Your task to perform on an android device: empty trash in the gmail app Image 0: 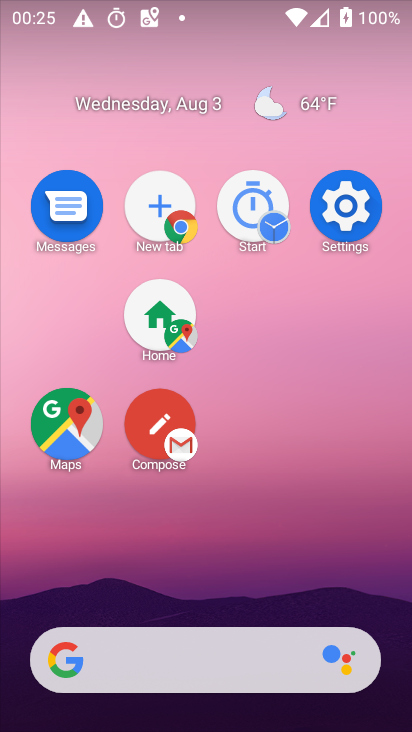
Step 0: drag from (300, 592) to (177, 265)
Your task to perform on an android device: empty trash in the gmail app Image 1: 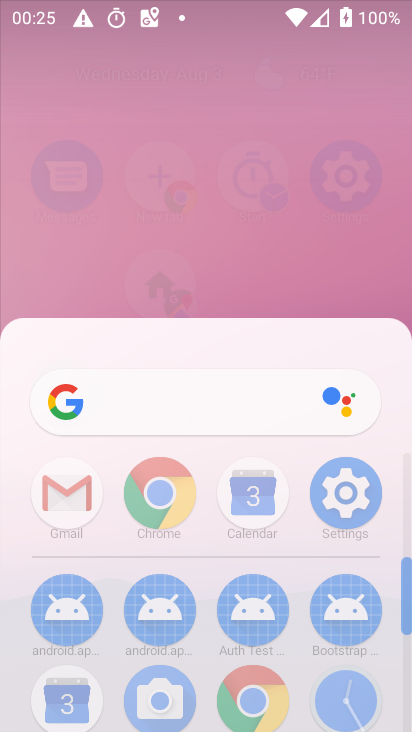
Step 1: drag from (407, 560) to (349, 176)
Your task to perform on an android device: empty trash in the gmail app Image 2: 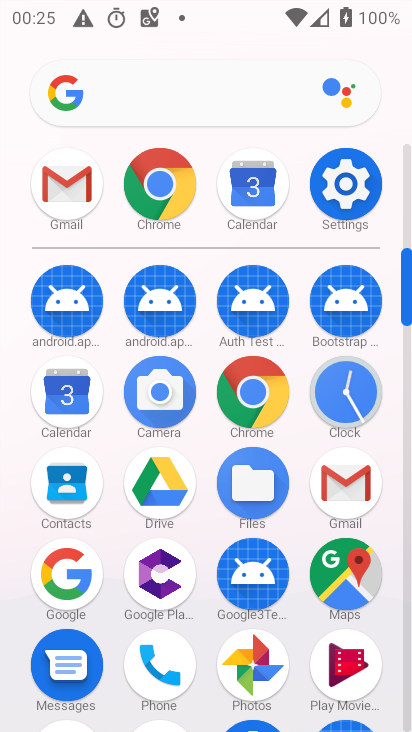
Step 2: drag from (163, 475) to (163, 352)
Your task to perform on an android device: empty trash in the gmail app Image 3: 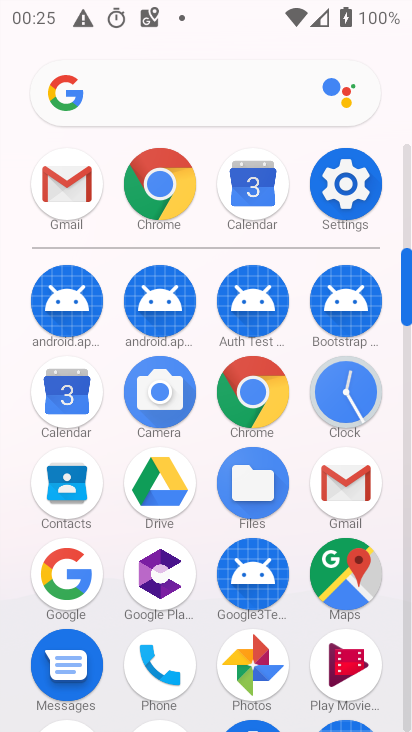
Step 3: click (358, 480)
Your task to perform on an android device: empty trash in the gmail app Image 4: 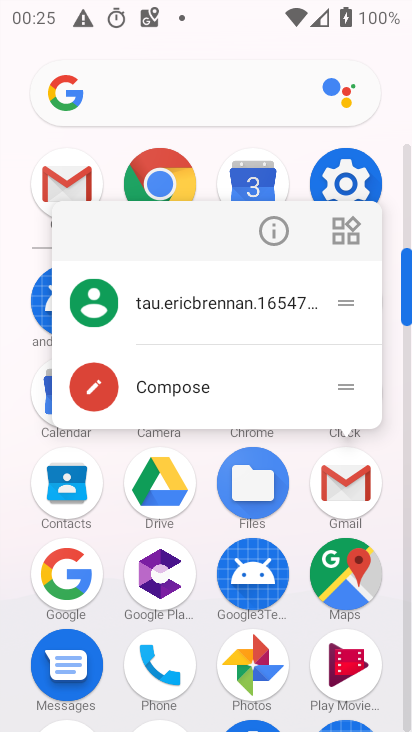
Step 4: click (211, 389)
Your task to perform on an android device: empty trash in the gmail app Image 5: 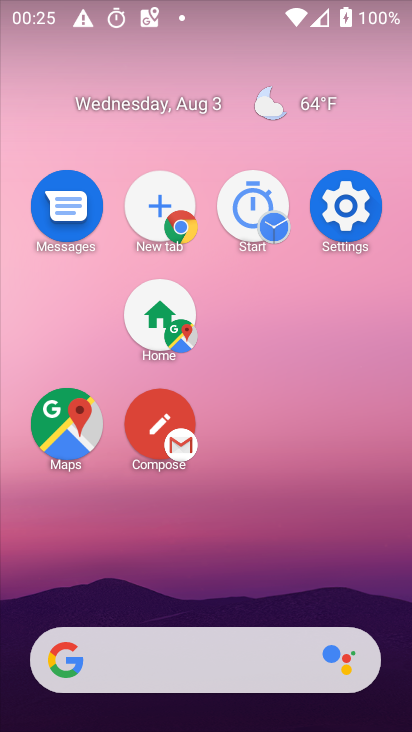
Step 5: drag from (226, 508) to (220, 74)
Your task to perform on an android device: empty trash in the gmail app Image 6: 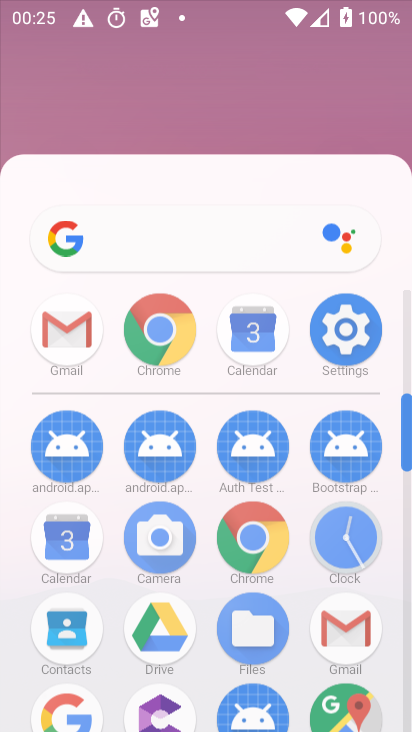
Step 6: drag from (298, 455) to (279, 226)
Your task to perform on an android device: empty trash in the gmail app Image 7: 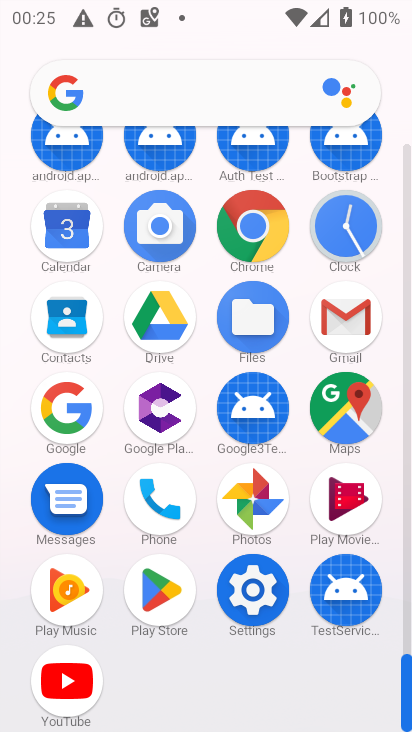
Step 7: click (359, 474)
Your task to perform on an android device: empty trash in the gmail app Image 8: 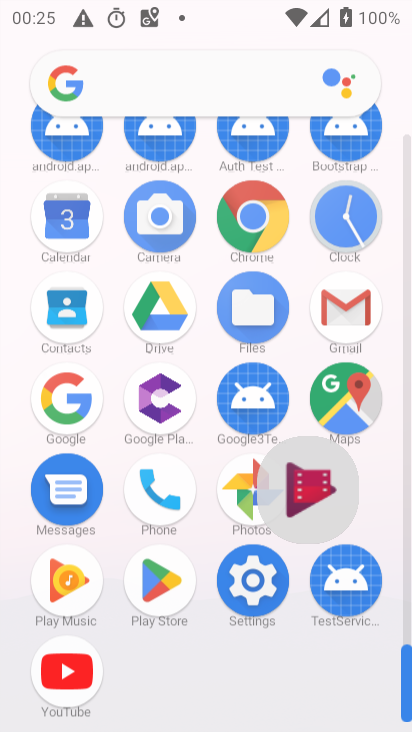
Step 8: click (337, 308)
Your task to perform on an android device: empty trash in the gmail app Image 9: 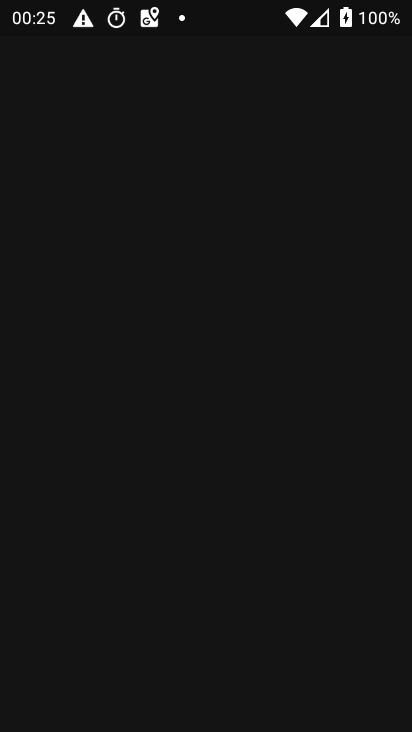
Step 9: click (338, 309)
Your task to perform on an android device: empty trash in the gmail app Image 10: 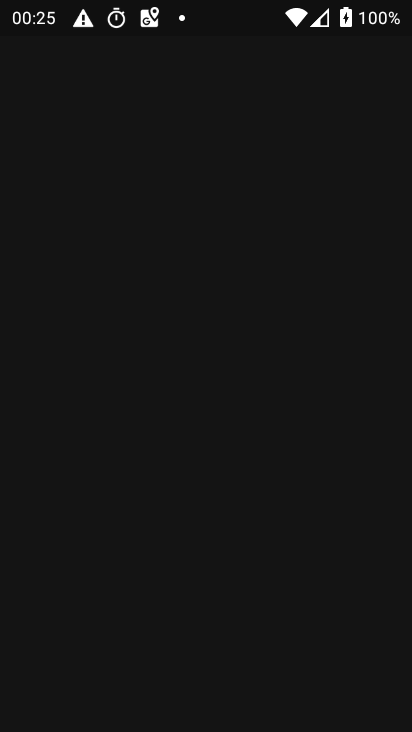
Step 10: click (339, 308)
Your task to perform on an android device: empty trash in the gmail app Image 11: 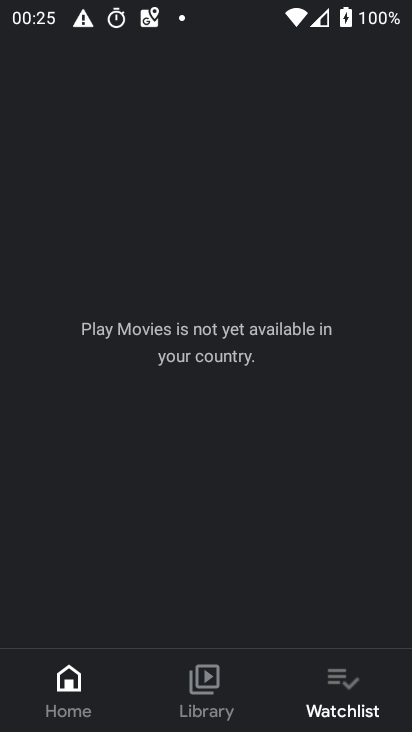
Step 11: press back button
Your task to perform on an android device: empty trash in the gmail app Image 12: 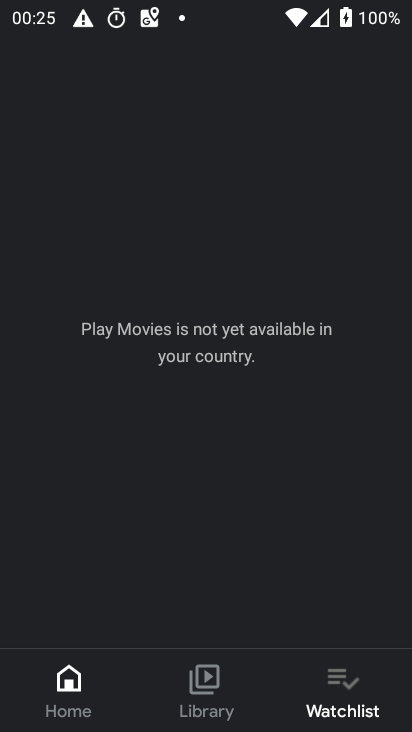
Step 12: press back button
Your task to perform on an android device: empty trash in the gmail app Image 13: 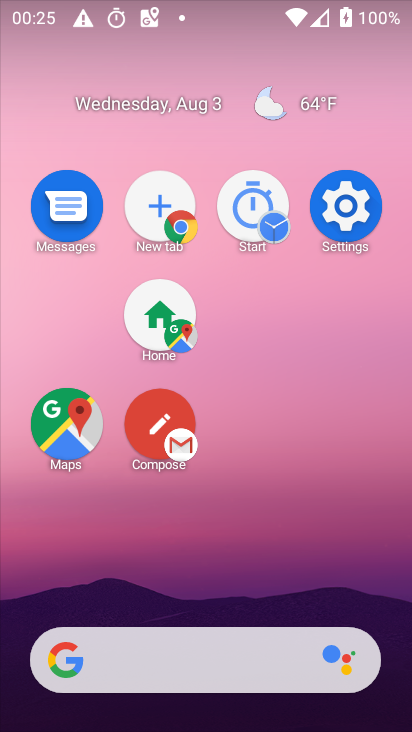
Step 13: drag from (301, 706) to (261, 384)
Your task to perform on an android device: empty trash in the gmail app Image 14: 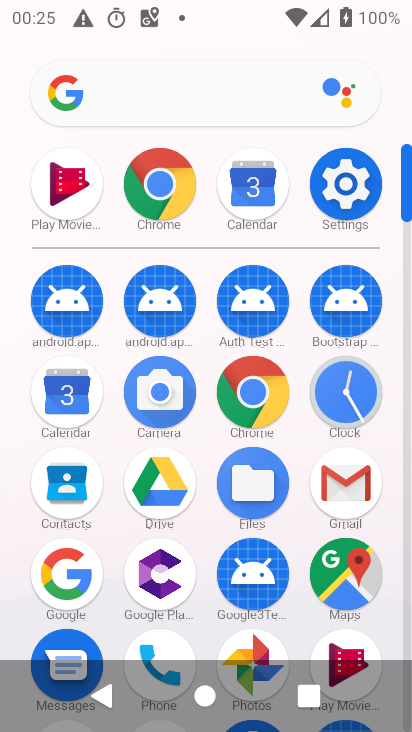
Step 14: click (336, 475)
Your task to perform on an android device: empty trash in the gmail app Image 15: 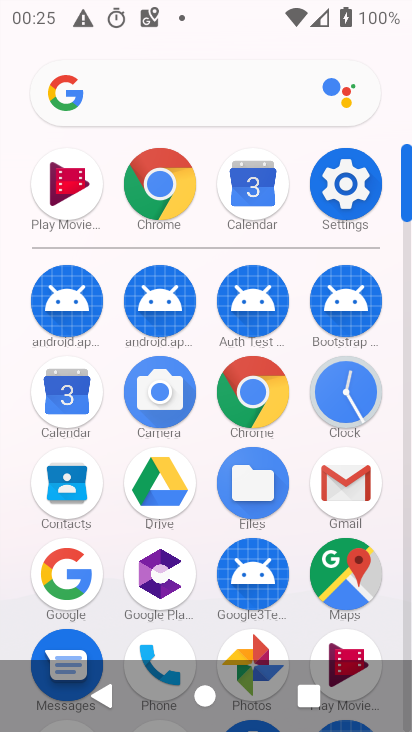
Step 15: click (336, 475)
Your task to perform on an android device: empty trash in the gmail app Image 16: 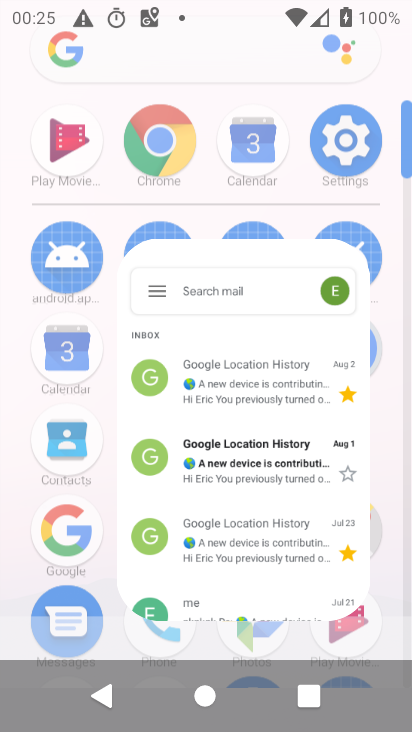
Step 16: click (335, 475)
Your task to perform on an android device: empty trash in the gmail app Image 17: 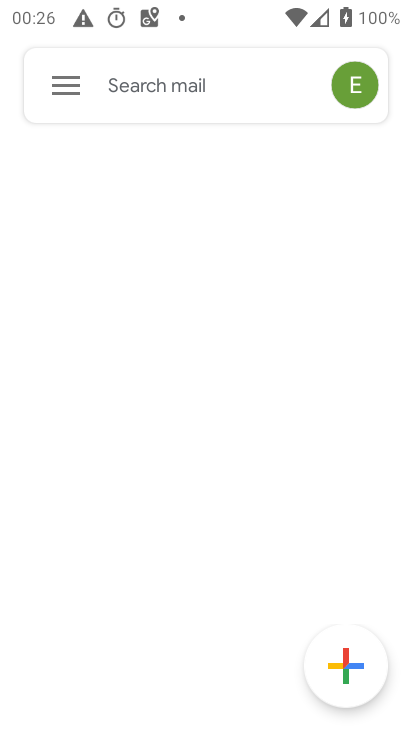
Step 17: drag from (76, 87) to (130, 362)
Your task to perform on an android device: empty trash in the gmail app Image 18: 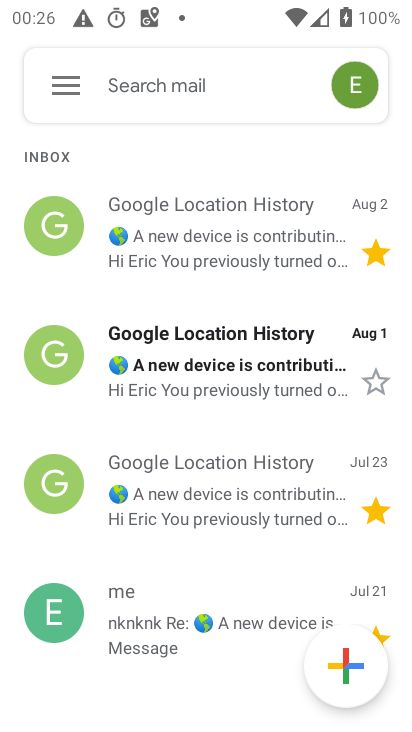
Step 18: click (65, 92)
Your task to perform on an android device: empty trash in the gmail app Image 19: 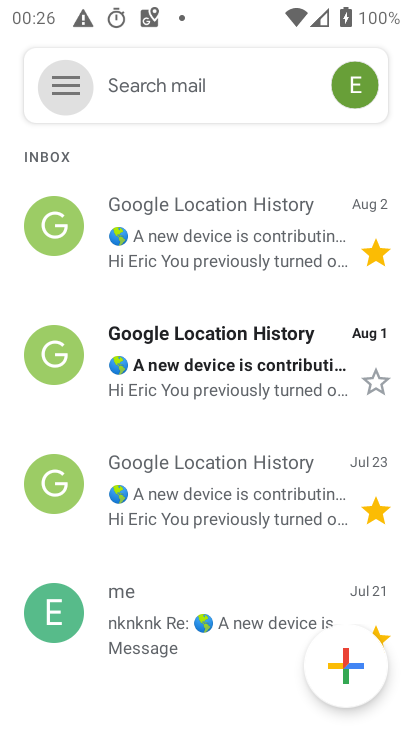
Step 19: drag from (65, 91) to (140, 388)
Your task to perform on an android device: empty trash in the gmail app Image 20: 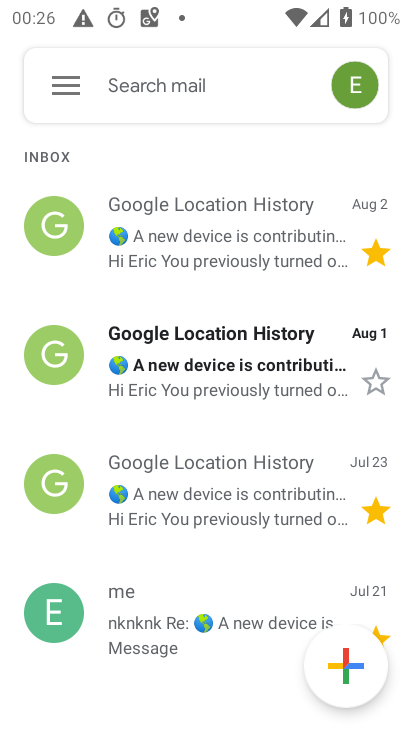
Step 20: drag from (145, 391) to (398, 124)
Your task to perform on an android device: empty trash in the gmail app Image 21: 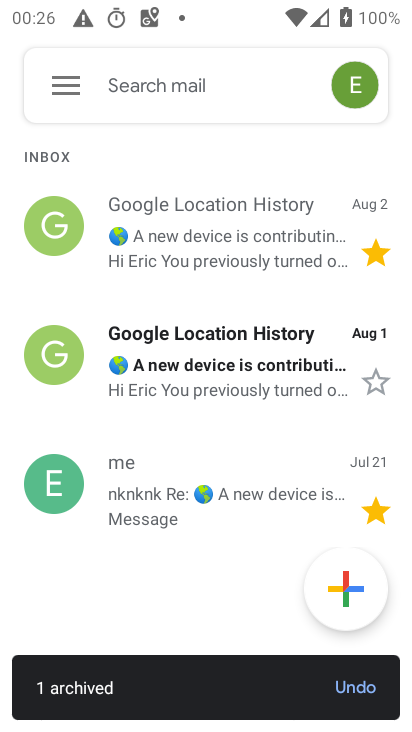
Step 21: click (354, 694)
Your task to perform on an android device: empty trash in the gmail app Image 22: 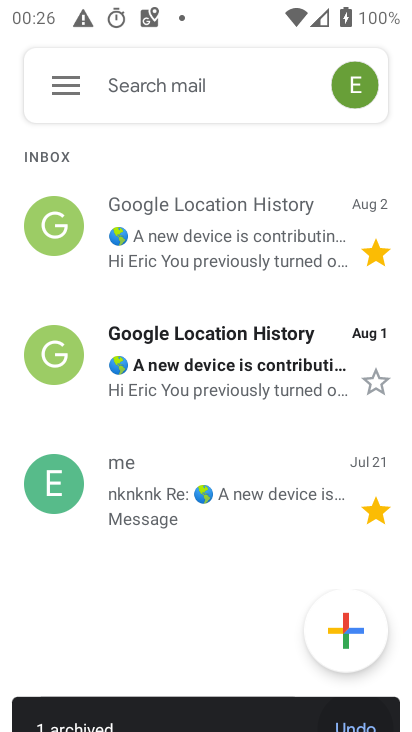
Step 22: click (66, 84)
Your task to perform on an android device: empty trash in the gmail app Image 23: 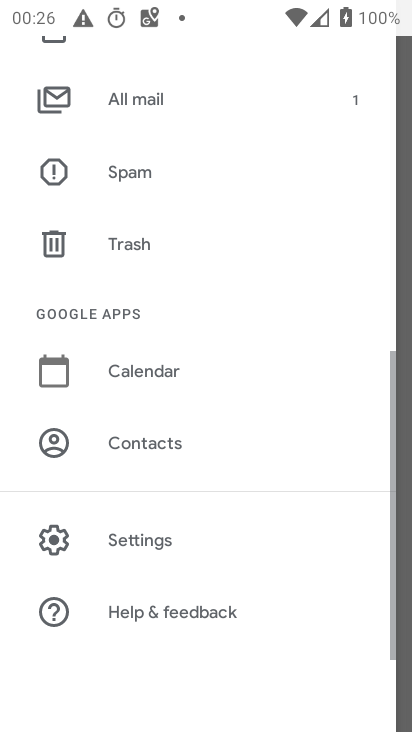
Step 23: click (130, 238)
Your task to perform on an android device: empty trash in the gmail app Image 24: 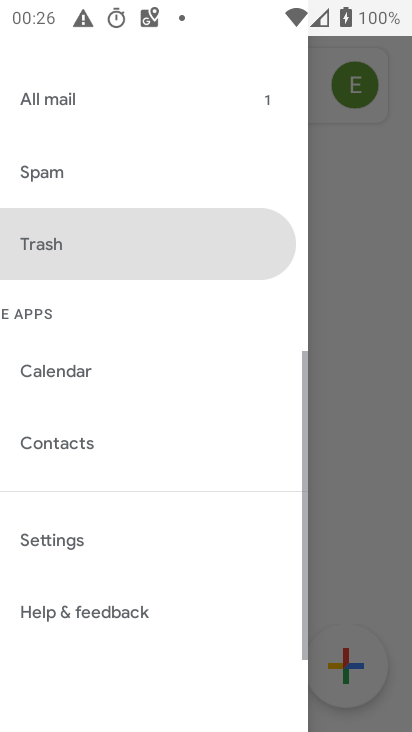
Step 24: click (133, 239)
Your task to perform on an android device: empty trash in the gmail app Image 25: 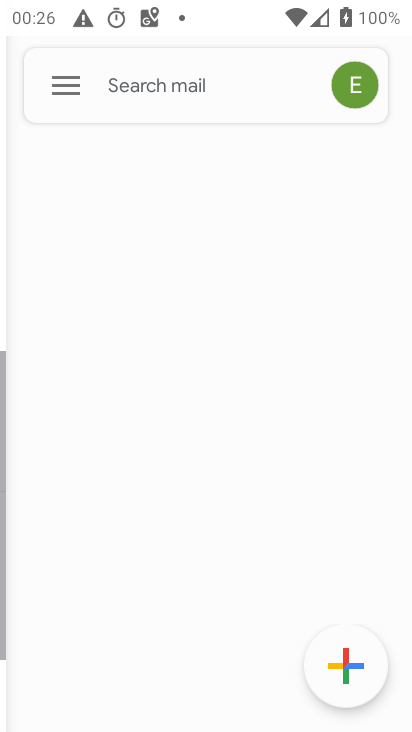
Step 25: click (133, 239)
Your task to perform on an android device: empty trash in the gmail app Image 26: 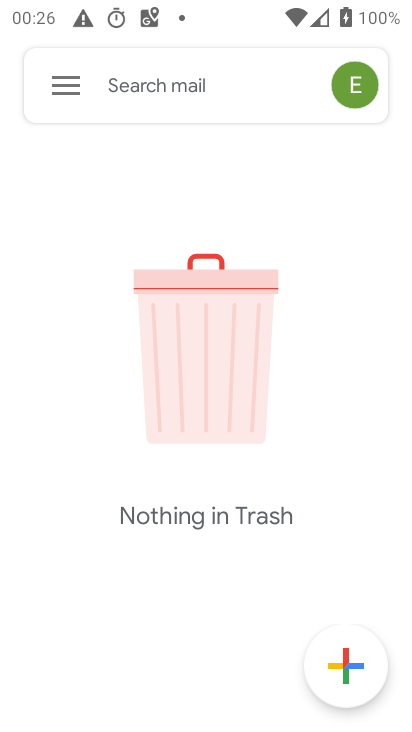
Step 26: task complete